Your task to perform on an android device: install app "Expedia: Hotels, Flights & Car" Image 0: 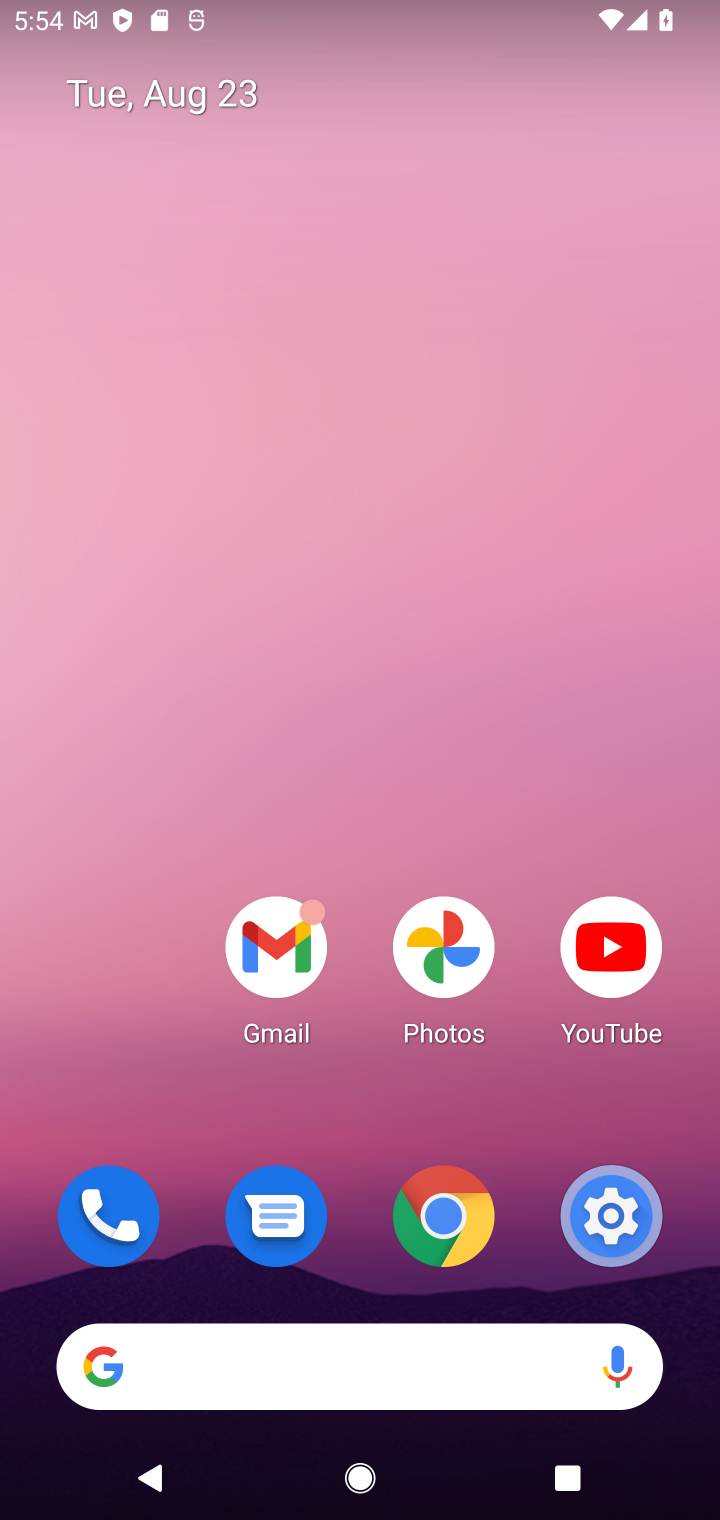
Step 0: drag from (366, 1350) to (435, 949)
Your task to perform on an android device: install app "Expedia: Hotels, Flights & Car" Image 1: 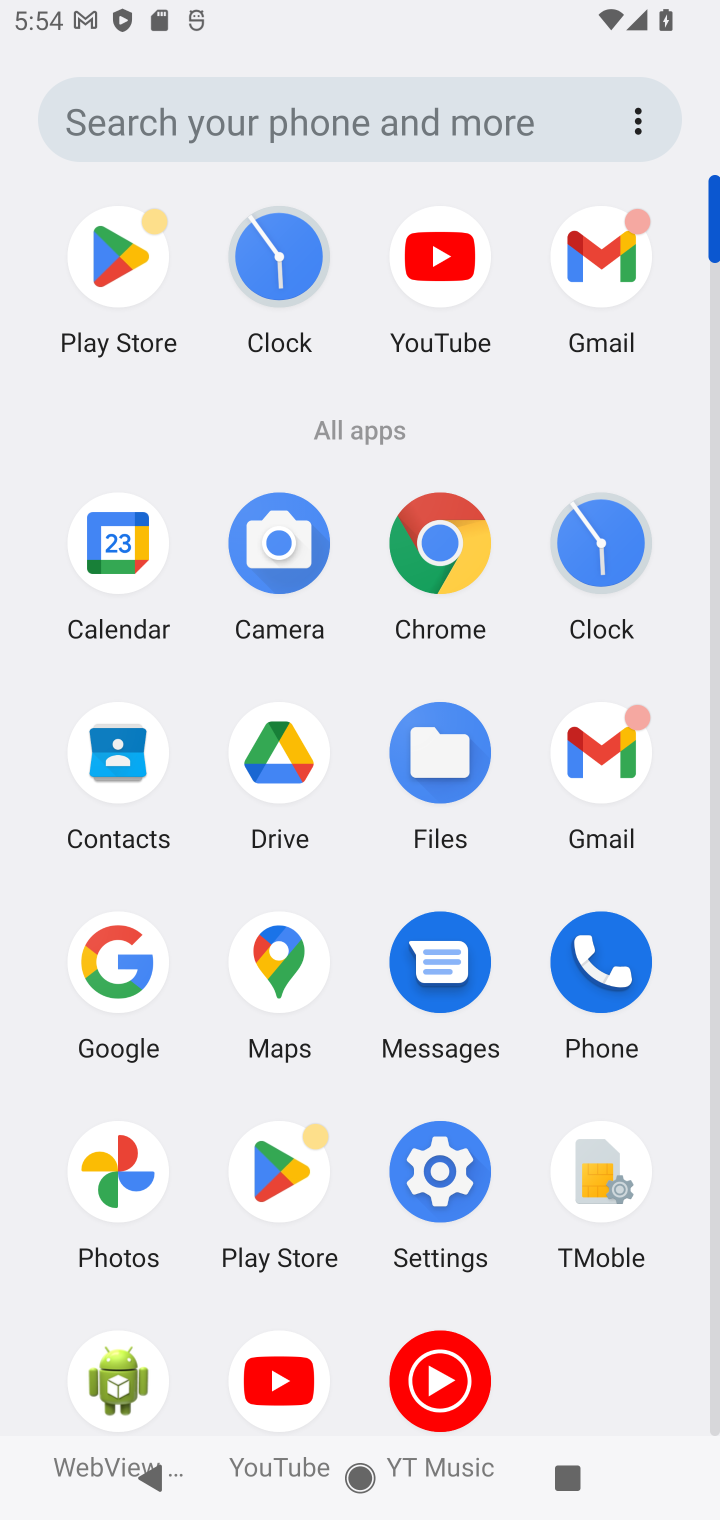
Step 1: click (296, 1201)
Your task to perform on an android device: install app "Expedia: Hotels, Flights & Car" Image 2: 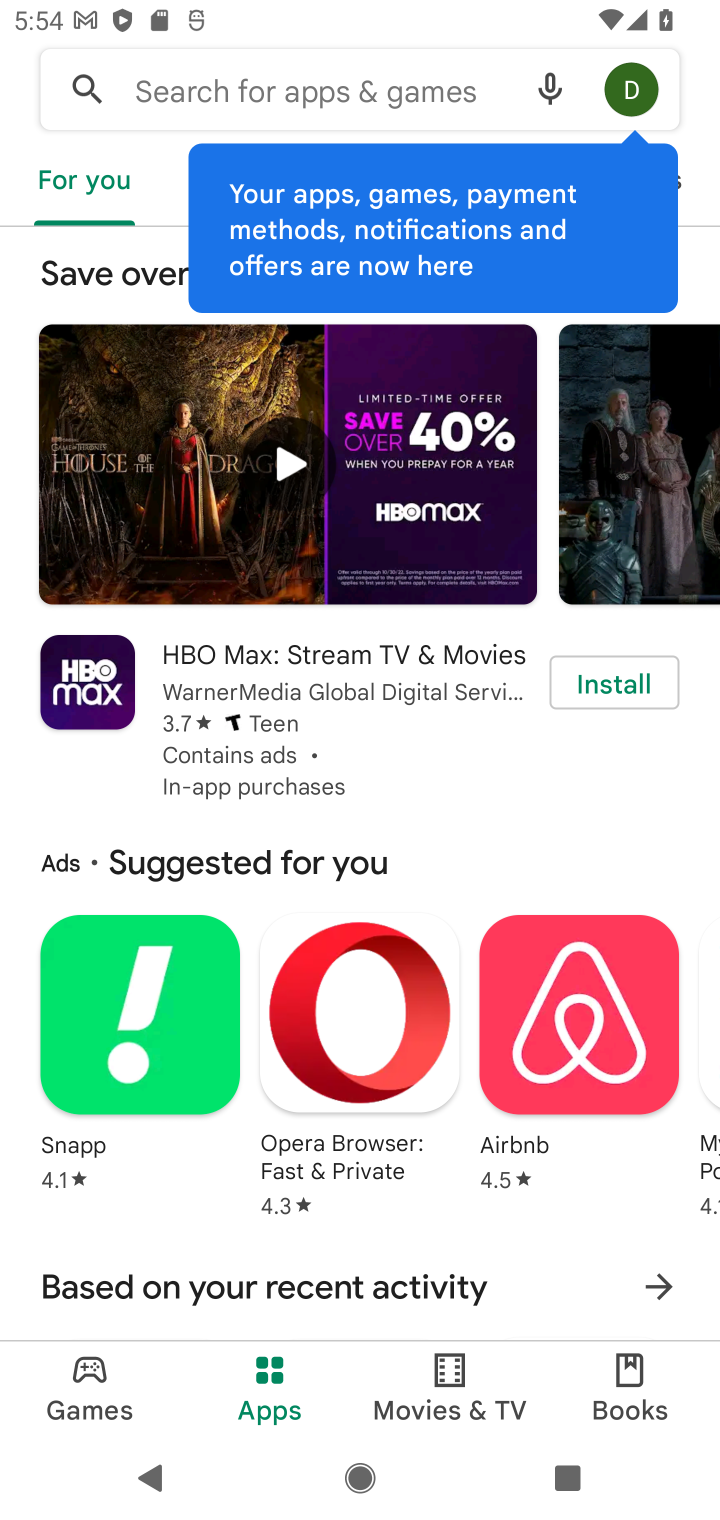
Step 2: click (375, 92)
Your task to perform on an android device: install app "Expedia: Hotels, Flights & Car" Image 3: 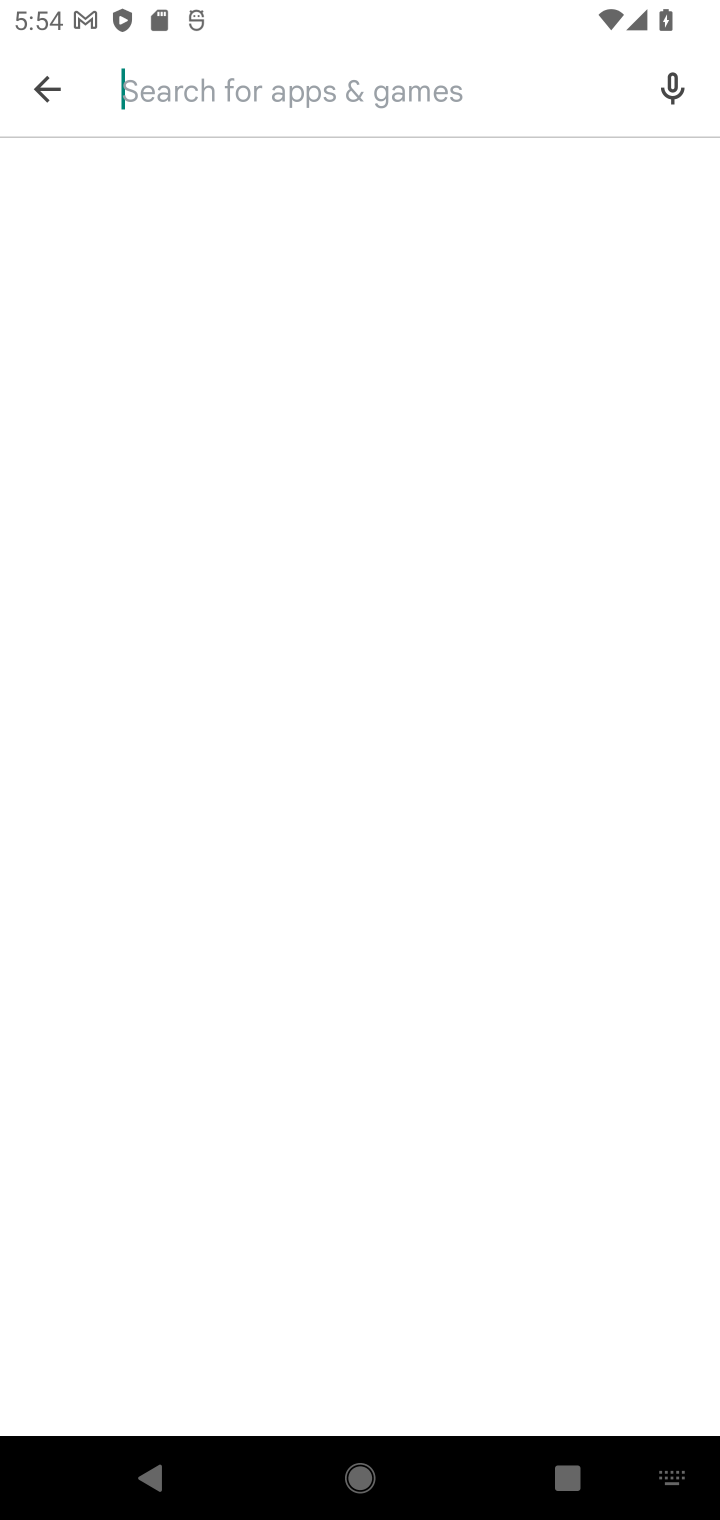
Step 3: type "Expedia: Hotels, Flights & Car"
Your task to perform on an android device: install app "Expedia: Hotels, Flights & Car" Image 4: 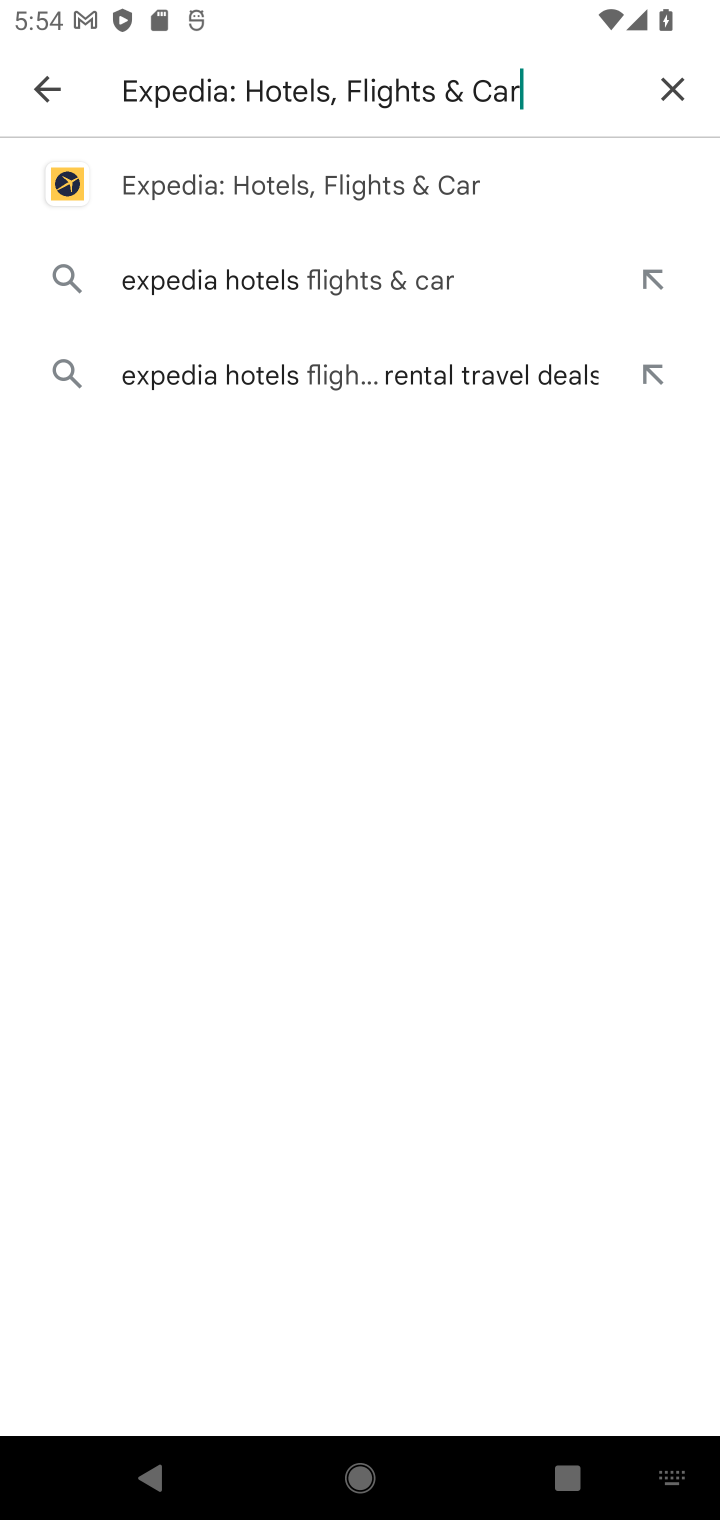
Step 4: click (373, 176)
Your task to perform on an android device: install app "Expedia: Hotels, Flights & Car" Image 5: 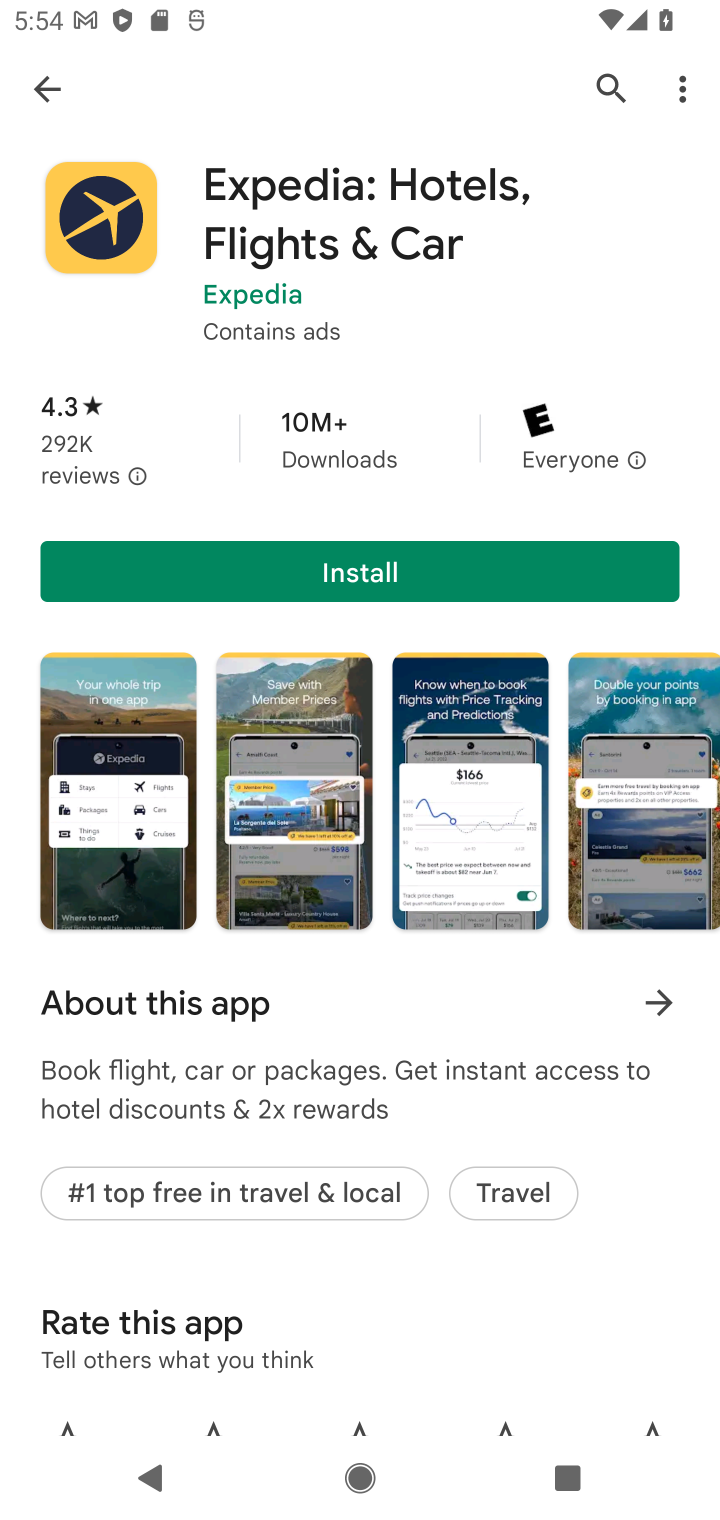
Step 5: click (401, 580)
Your task to perform on an android device: install app "Expedia: Hotels, Flights & Car" Image 6: 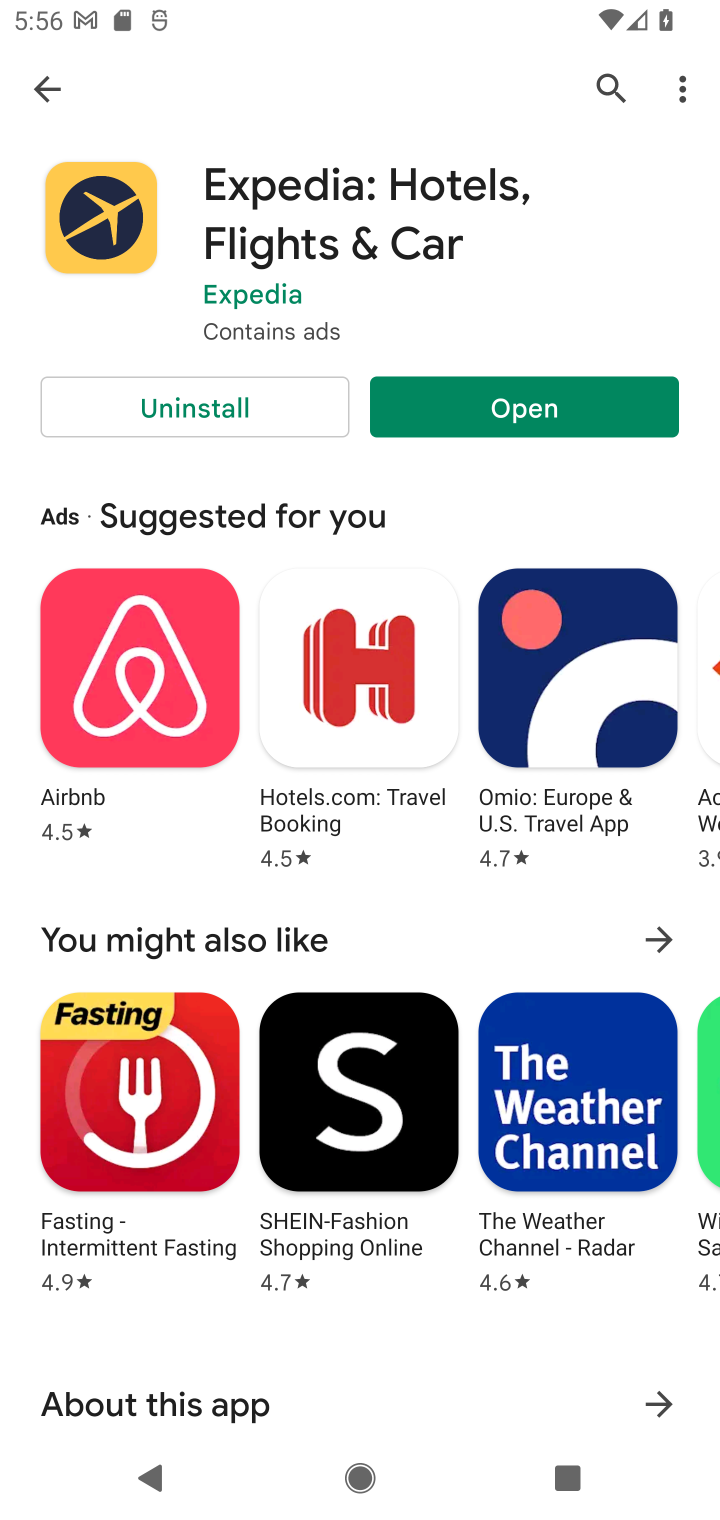
Step 6: click (606, 409)
Your task to perform on an android device: install app "Expedia: Hotels, Flights & Car" Image 7: 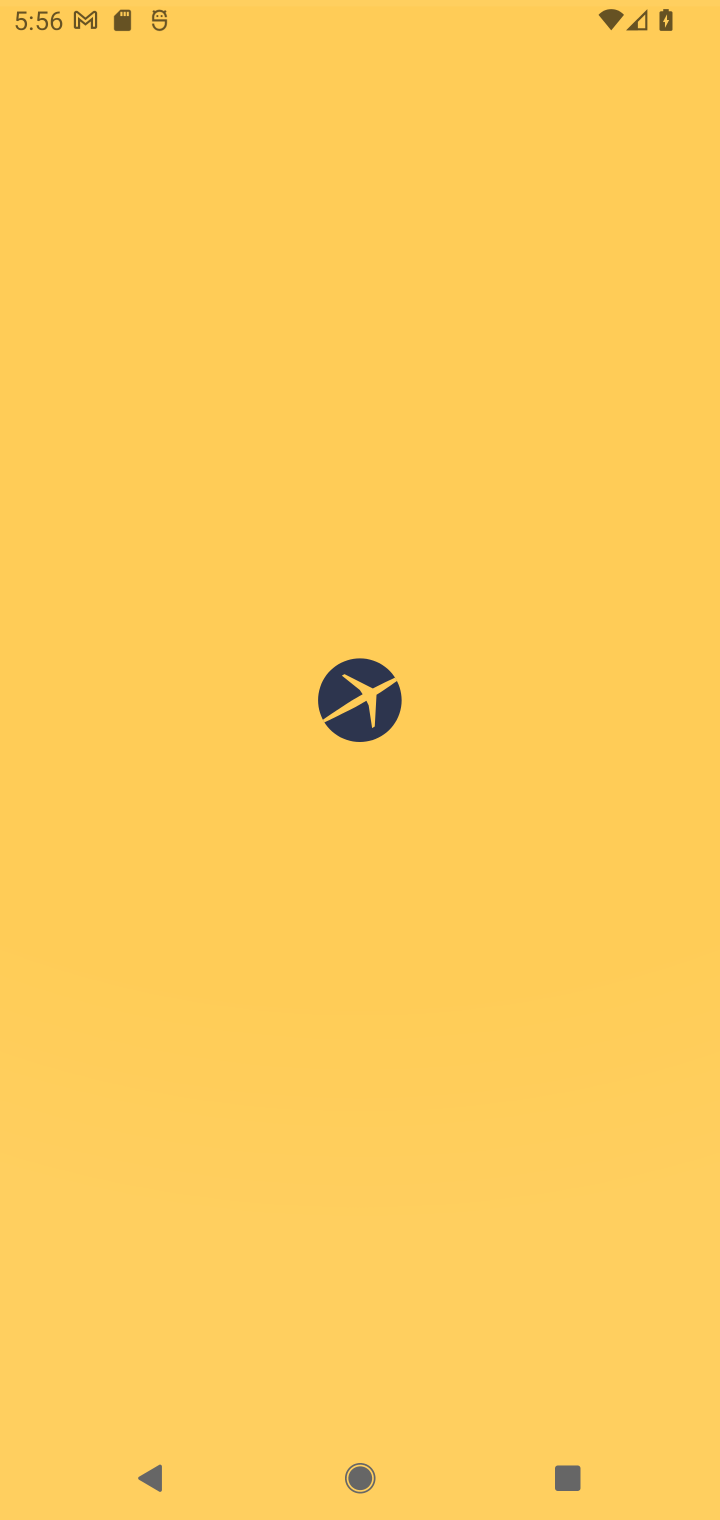
Step 7: task complete